Your task to perform on an android device: How much does a 3 bedroom apartment rent for in Chicago? Image 0: 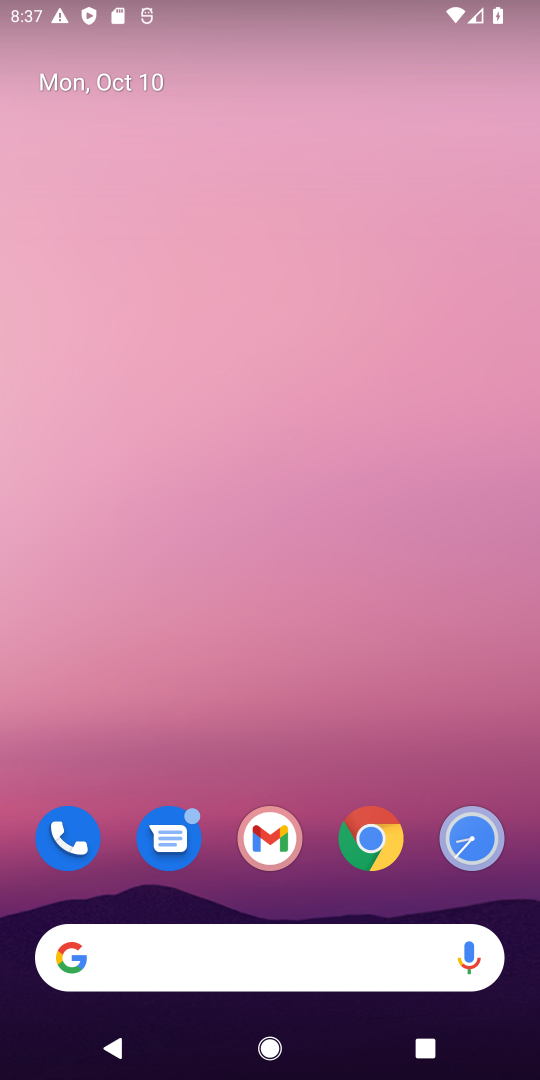
Step 0: drag from (334, 870) to (334, 135)
Your task to perform on an android device: How much does a 3 bedroom apartment rent for in Chicago? Image 1: 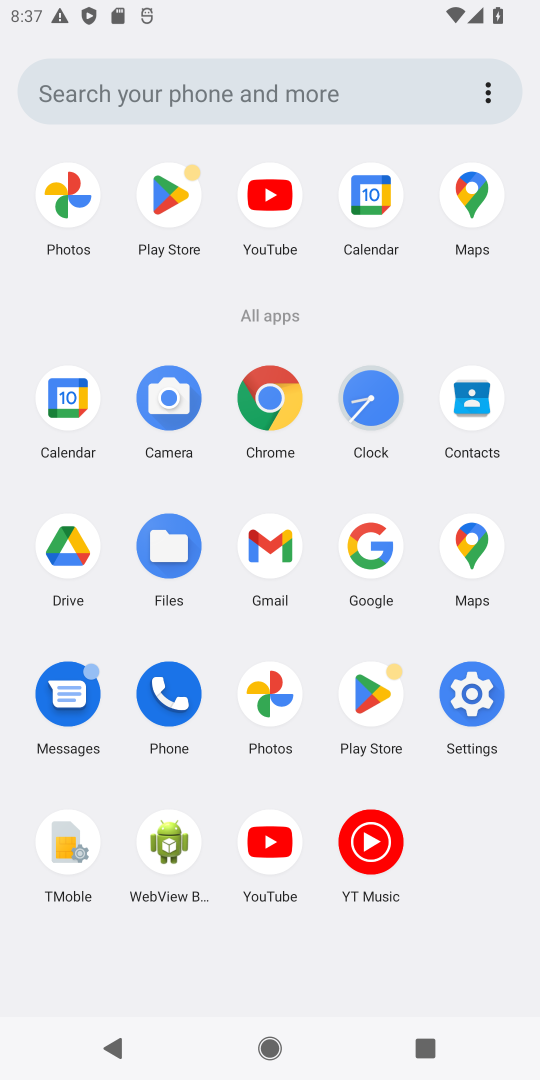
Step 1: click (264, 395)
Your task to perform on an android device: How much does a 3 bedroom apartment rent for in Chicago? Image 2: 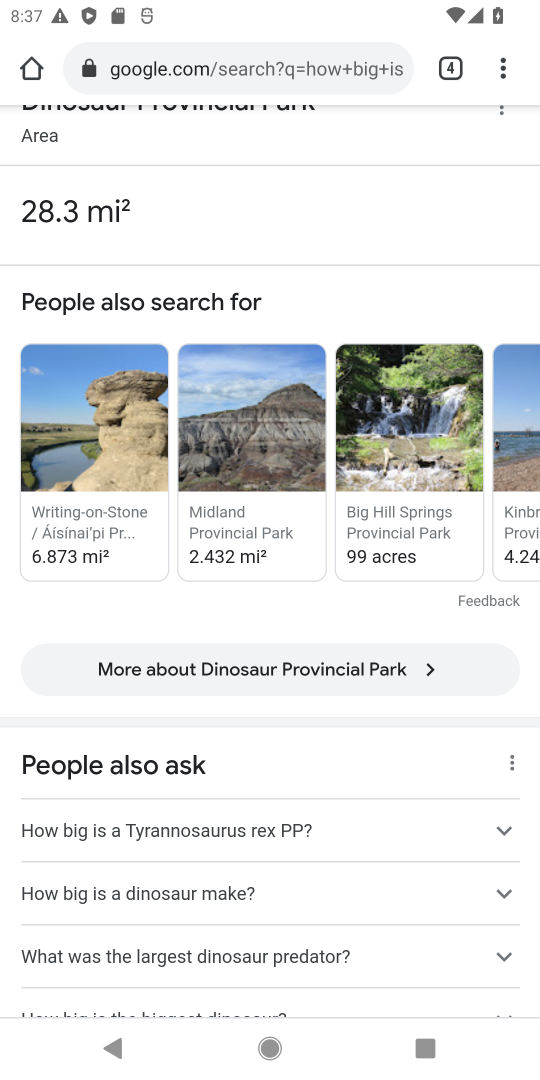
Step 2: drag from (285, 229) to (296, 796)
Your task to perform on an android device: How much does a 3 bedroom apartment rent for in Chicago? Image 3: 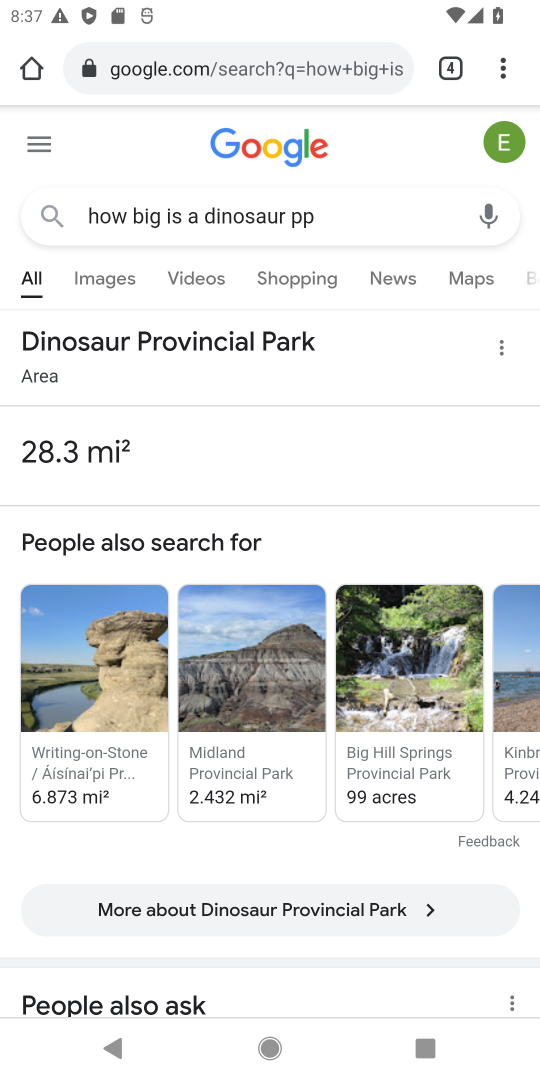
Step 3: click (340, 213)
Your task to perform on an android device: How much does a 3 bedroom apartment rent for in Chicago? Image 4: 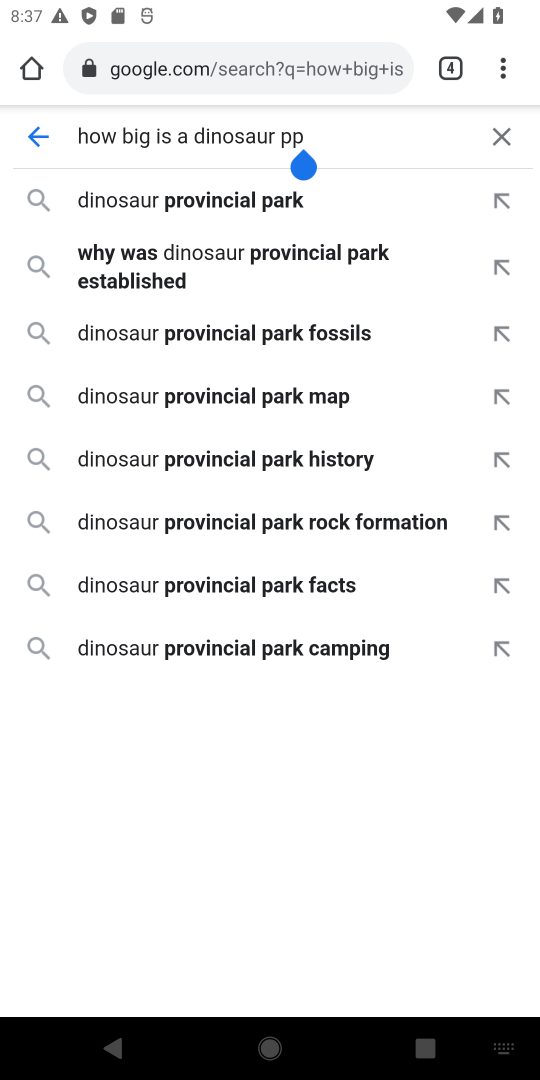
Step 4: click (500, 133)
Your task to perform on an android device: How much does a 3 bedroom apartment rent for in Chicago? Image 5: 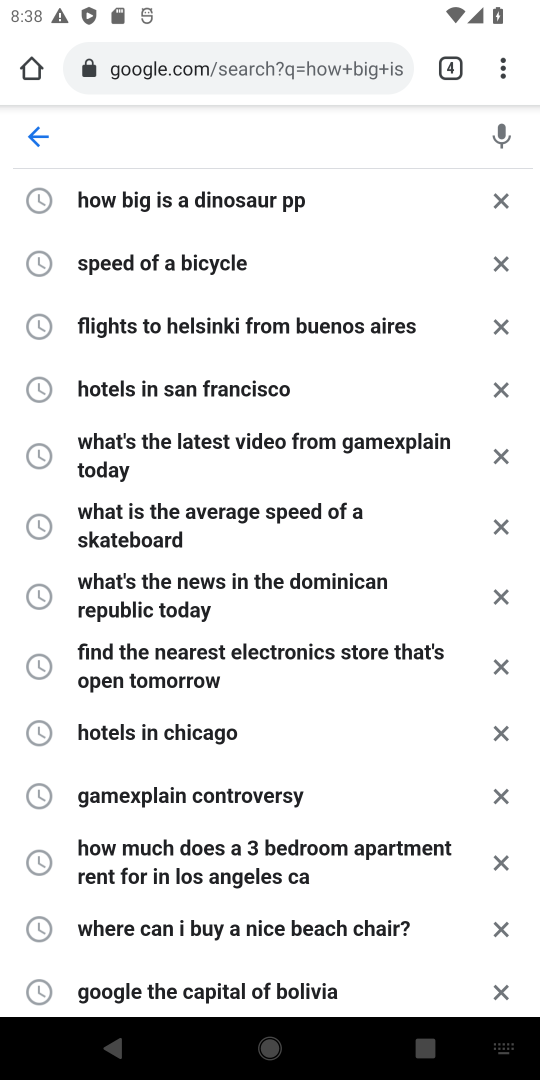
Step 5: type "How much does a 3 bedroom apartment rent for in Chicago?"
Your task to perform on an android device: How much does a 3 bedroom apartment rent for in Chicago? Image 6: 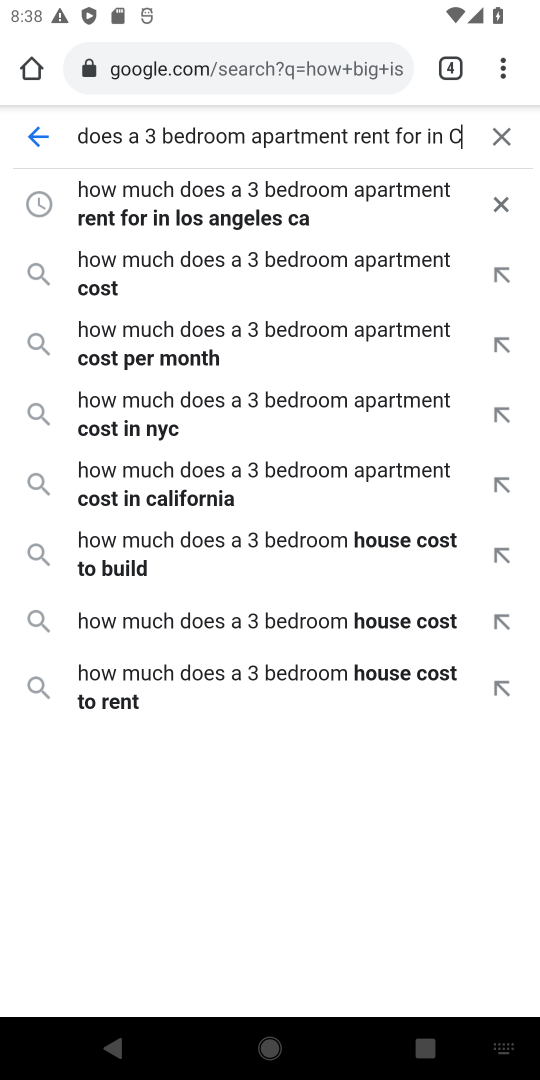
Step 6: type ""
Your task to perform on an android device: How much does a 3 bedroom apartment rent for in Chicago? Image 7: 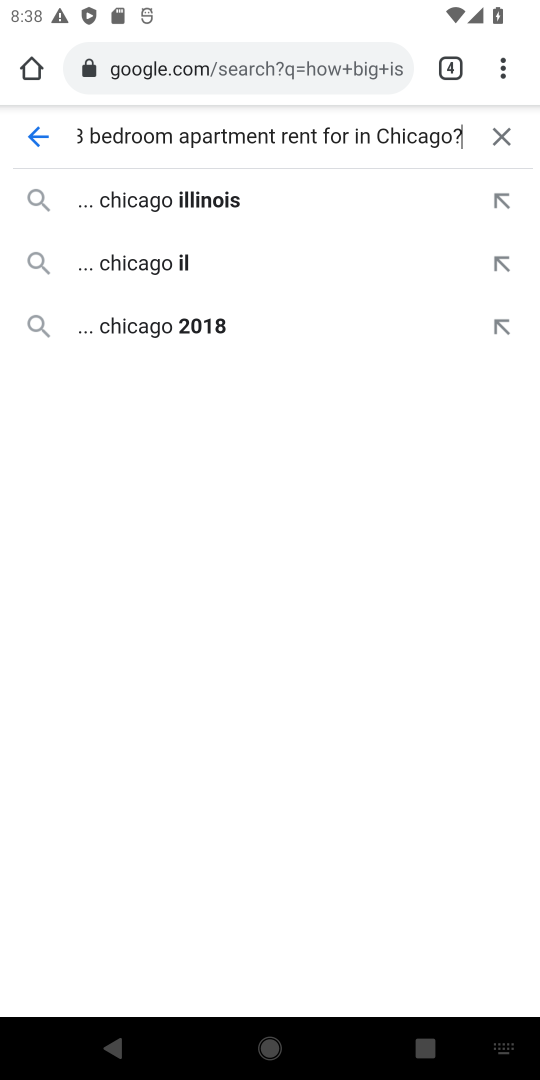
Step 7: click (155, 317)
Your task to perform on an android device: How much does a 3 bedroom apartment rent for in Chicago? Image 8: 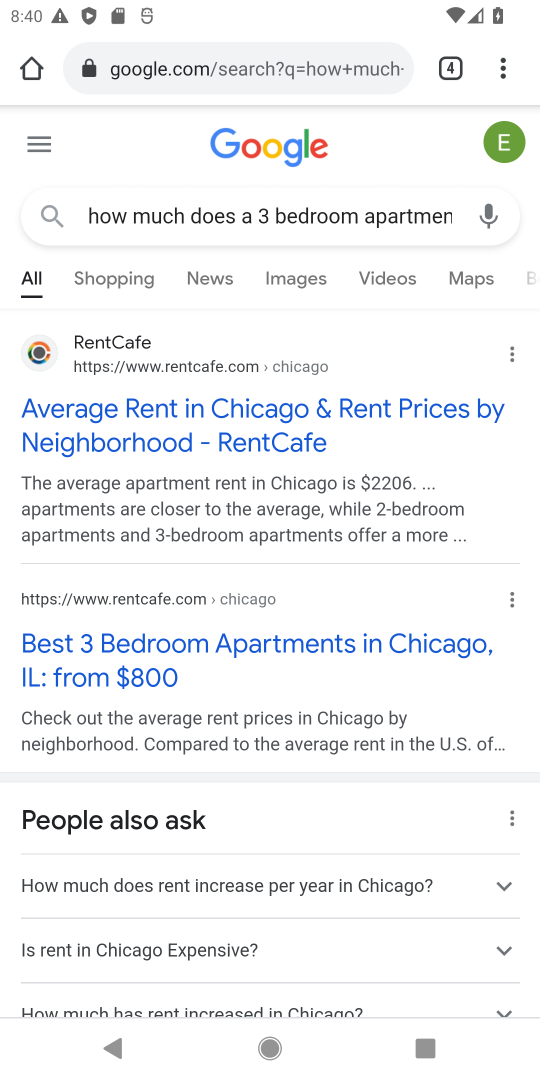
Step 8: click (225, 652)
Your task to perform on an android device: How much does a 3 bedroom apartment rent for in Chicago? Image 9: 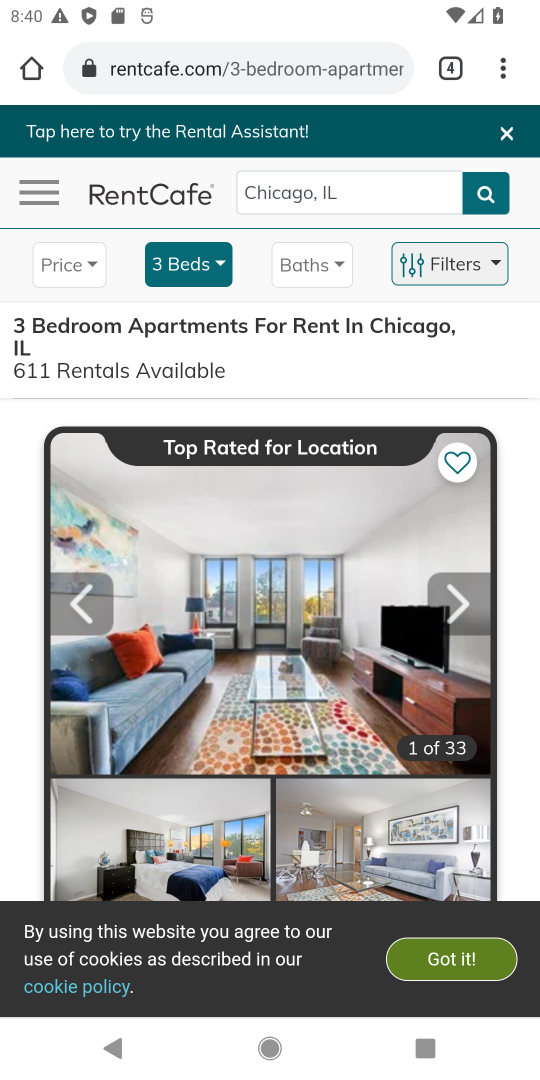
Step 9: task complete